Your task to perform on an android device: Show me the alarms in the clock app Image 0: 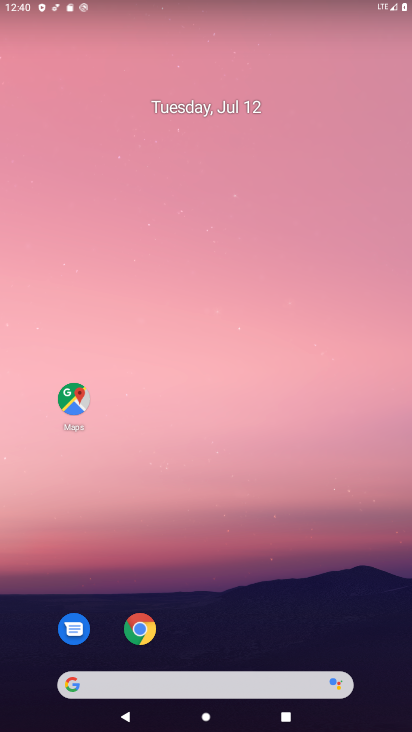
Step 0: drag from (23, 699) to (232, 18)
Your task to perform on an android device: Show me the alarms in the clock app Image 1: 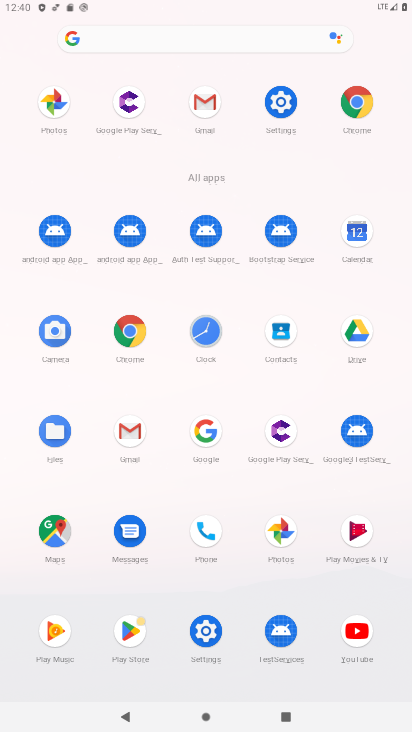
Step 1: click (212, 336)
Your task to perform on an android device: Show me the alarms in the clock app Image 2: 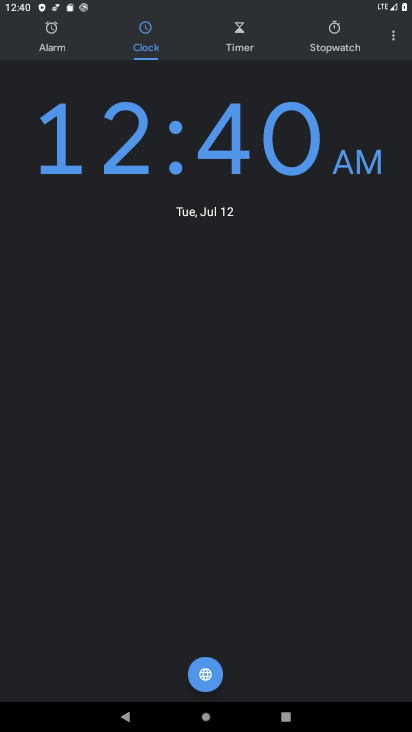
Step 2: click (51, 52)
Your task to perform on an android device: Show me the alarms in the clock app Image 3: 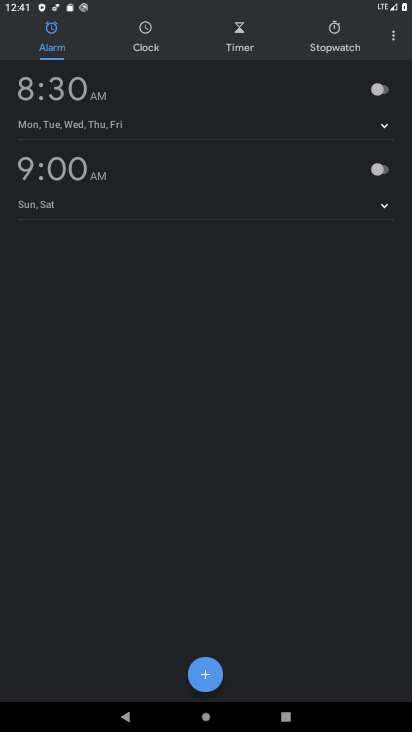
Step 3: task complete